Your task to perform on an android device: Show me popular games on the Play Store Image 0: 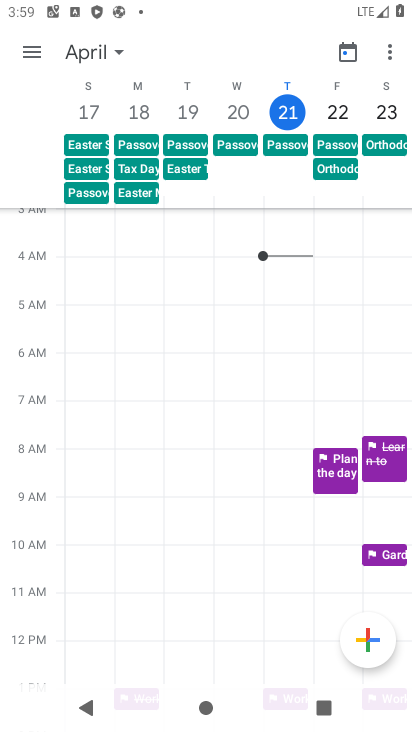
Step 0: press home button
Your task to perform on an android device: Show me popular games on the Play Store Image 1: 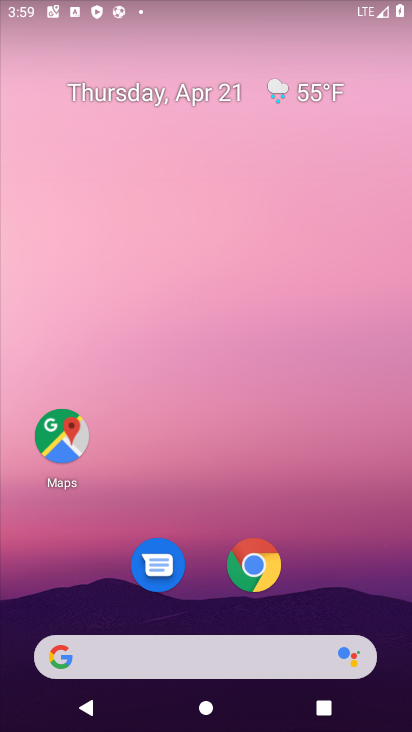
Step 1: drag from (323, 564) to (322, 59)
Your task to perform on an android device: Show me popular games on the Play Store Image 2: 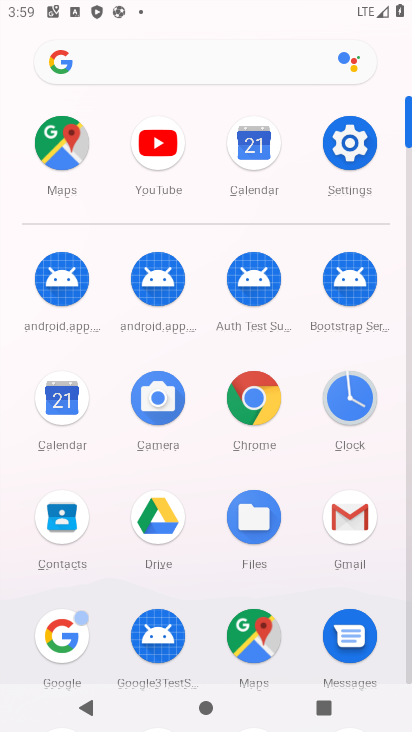
Step 2: drag from (210, 530) to (227, 176)
Your task to perform on an android device: Show me popular games on the Play Store Image 3: 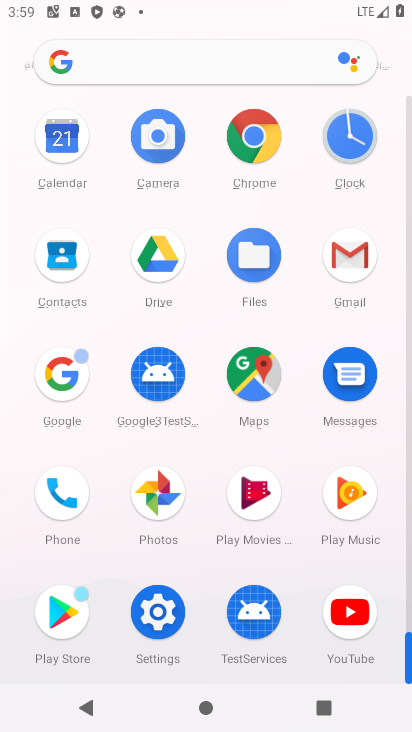
Step 3: click (64, 586)
Your task to perform on an android device: Show me popular games on the Play Store Image 4: 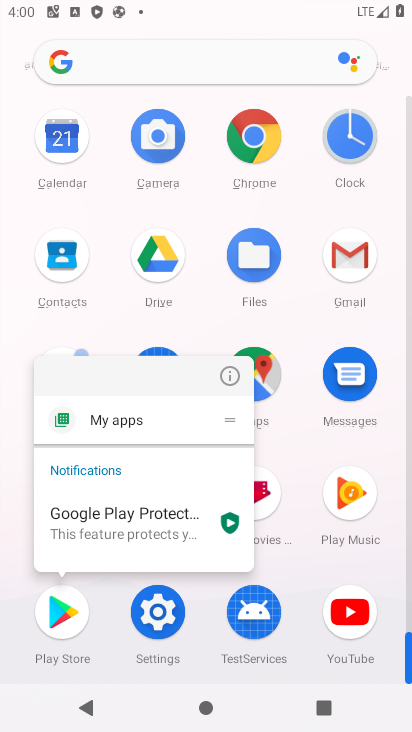
Step 4: click (64, 605)
Your task to perform on an android device: Show me popular games on the Play Store Image 5: 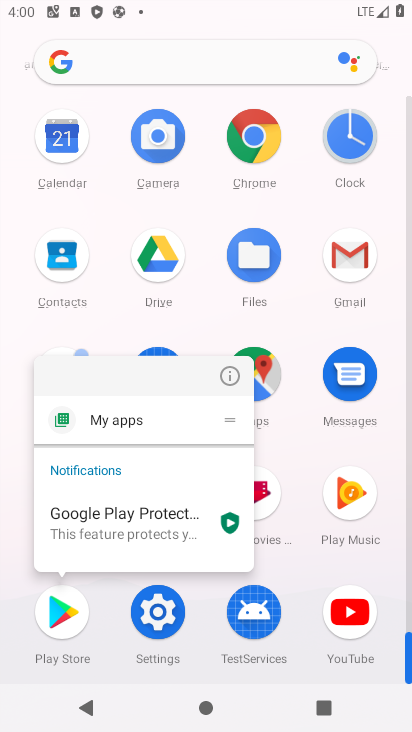
Step 5: click (64, 607)
Your task to perform on an android device: Show me popular games on the Play Store Image 6: 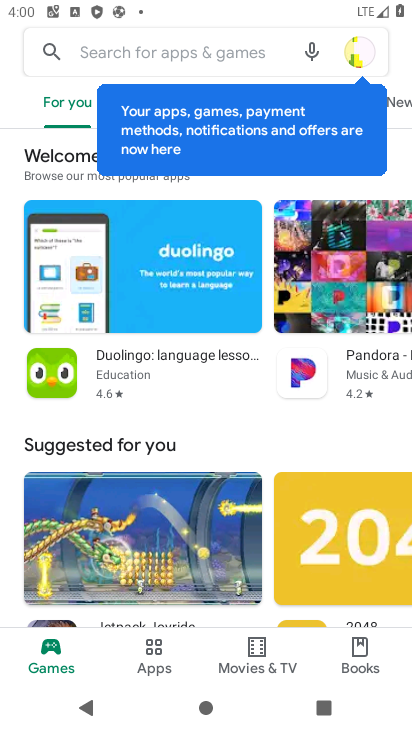
Step 6: drag from (140, 463) to (152, 204)
Your task to perform on an android device: Show me popular games on the Play Store Image 7: 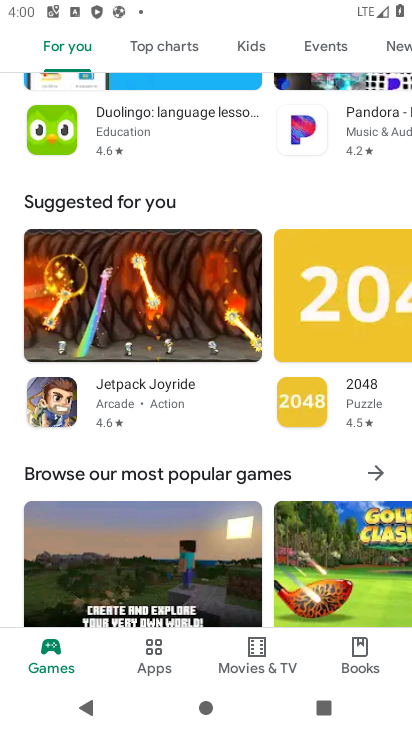
Step 7: drag from (165, 532) to (183, 128)
Your task to perform on an android device: Show me popular games on the Play Store Image 8: 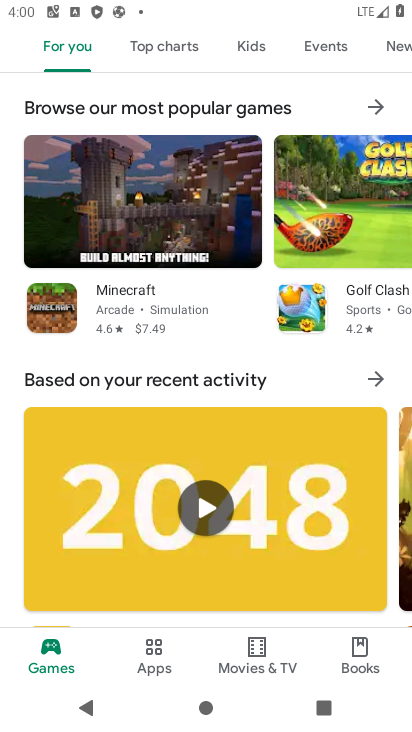
Step 8: drag from (139, 525) to (161, 187)
Your task to perform on an android device: Show me popular games on the Play Store Image 9: 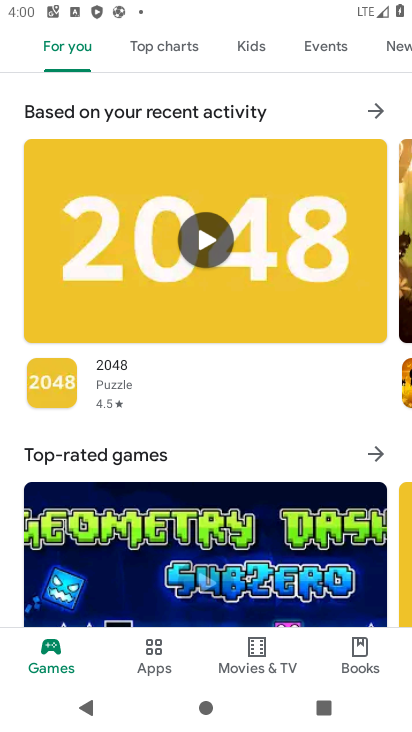
Step 9: drag from (164, 580) to (198, 218)
Your task to perform on an android device: Show me popular games on the Play Store Image 10: 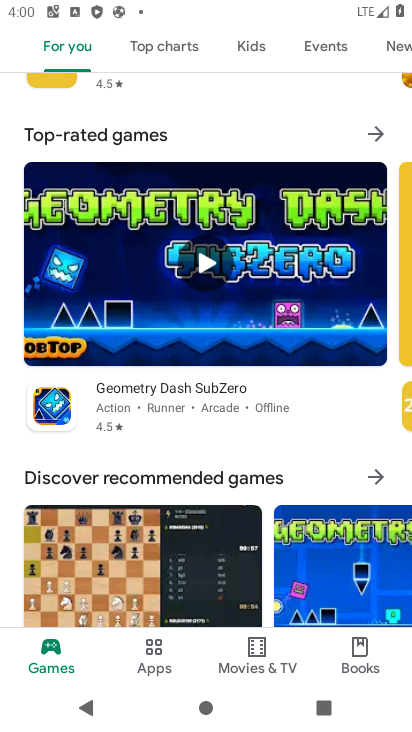
Step 10: drag from (183, 532) to (220, 182)
Your task to perform on an android device: Show me popular games on the Play Store Image 11: 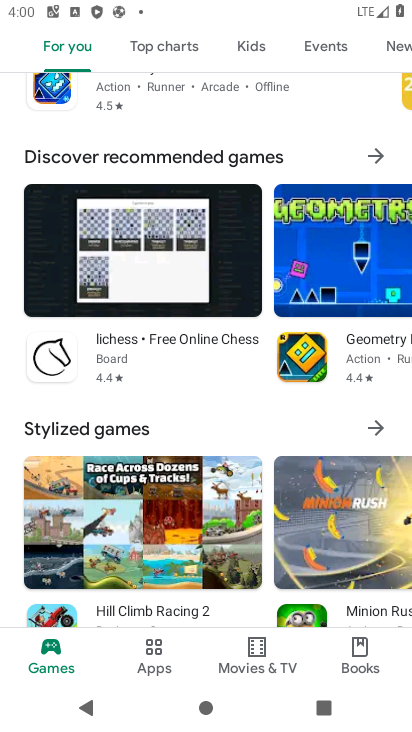
Step 11: drag from (197, 261) to (145, 589)
Your task to perform on an android device: Show me popular games on the Play Store Image 12: 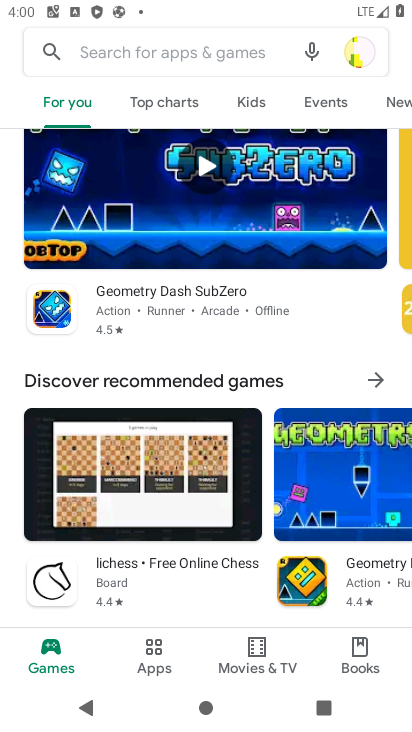
Step 12: drag from (168, 245) to (125, 545)
Your task to perform on an android device: Show me popular games on the Play Store Image 13: 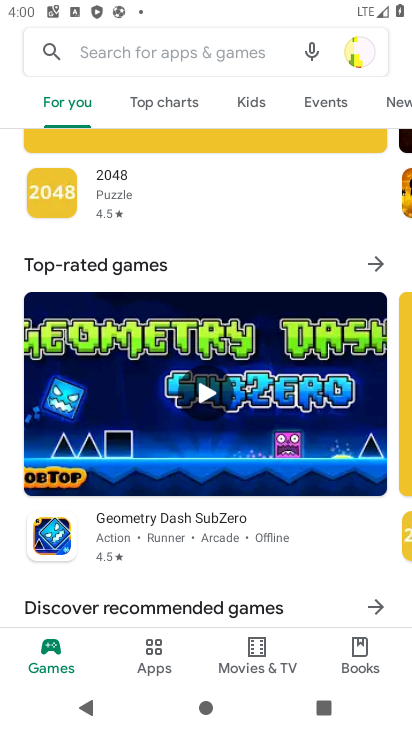
Step 13: drag from (186, 229) to (167, 638)
Your task to perform on an android device: Show me popular games on the Play Store Image 14: 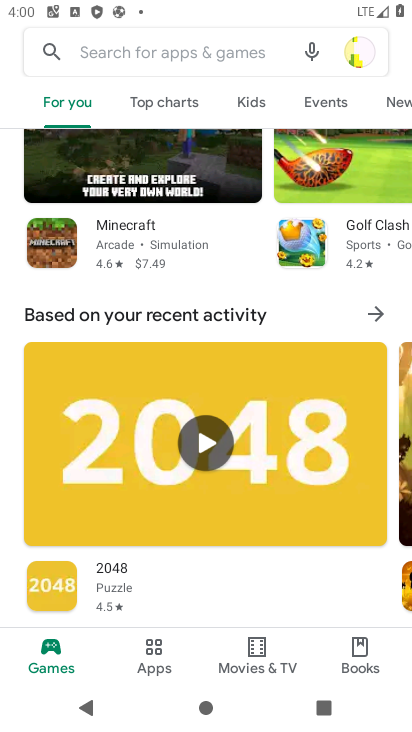
Step 14: drag from (233, 241) to (222, 720)
Your task to perform on an android device: Show me popular games on the Play Store Image 15: 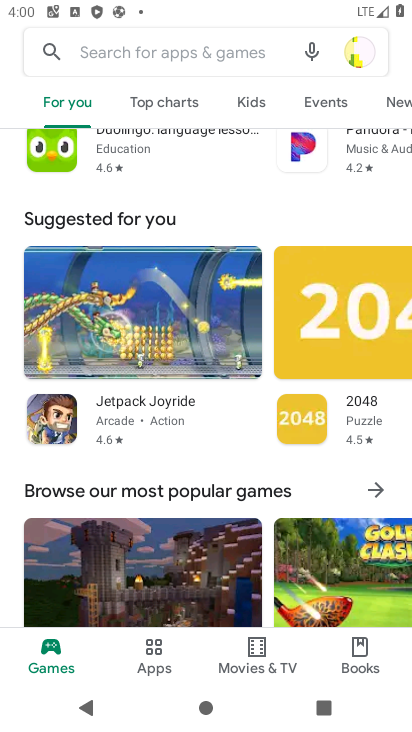
Step 15: drag from (219, 196) to (198, 689)
Your task to perform on an android device: Show me popular games on the Play Store Image 16: 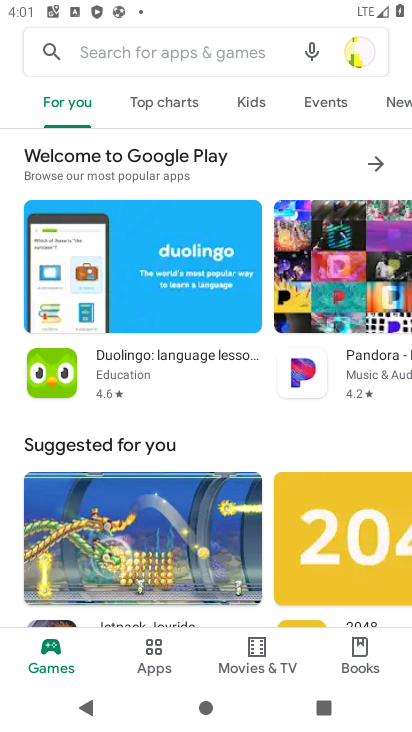
Step 16: click (189, 48)
Your task to perform on an android device: Show me popular games on the Play Store Image 17: 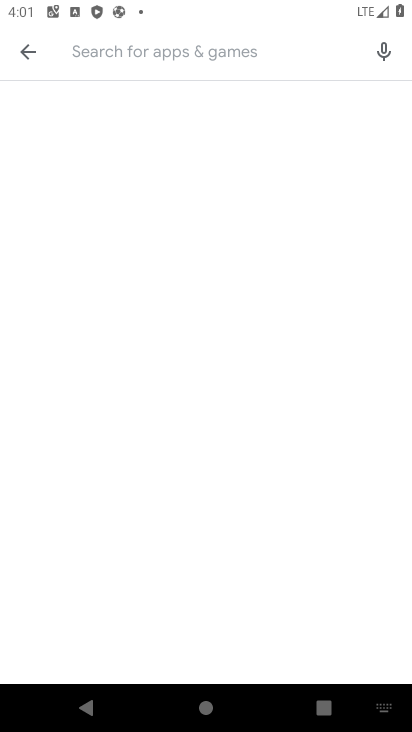
Step 17: type "popular games"
Your task to perform on an android device: Show me popular games on the Play Store Image 18: 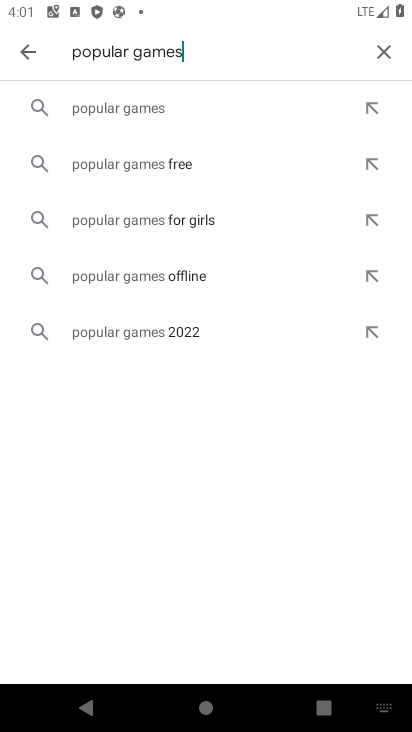
Step 18: click (148, 111)
Your task to perform on an android device: Show me popular games on the Play Store Image 19: 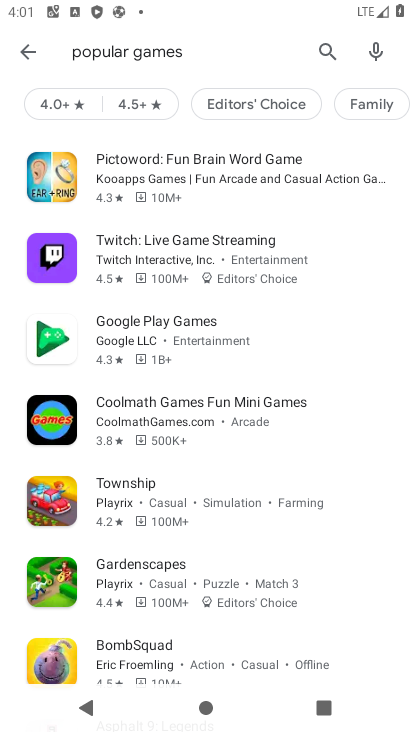
Step 19: task complete